Your task to perform on an android device: Go to calendar. Show me events next week Image 0: 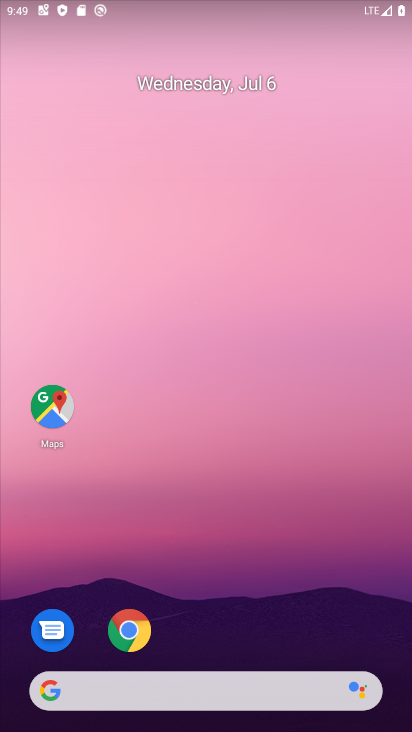
Step 0: drag from (370, 621) to (334, 100)
Your task to perform on an android device: Go to calendar. Show me events next week Image 1: 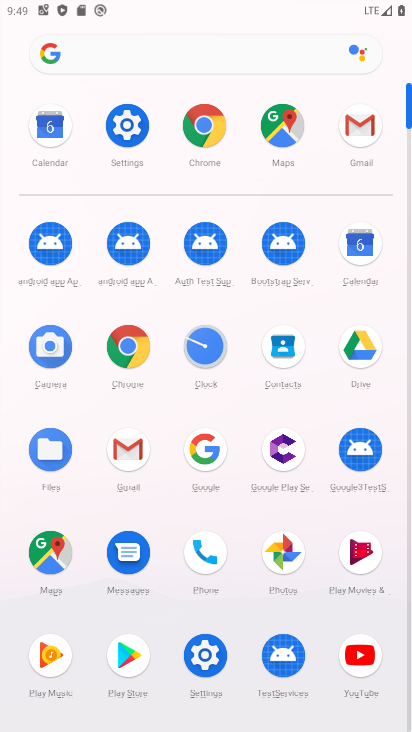
Step 1: click (359, 244)
Your task to perform on an android device: Go to calendar. Show me events next week Image 2: 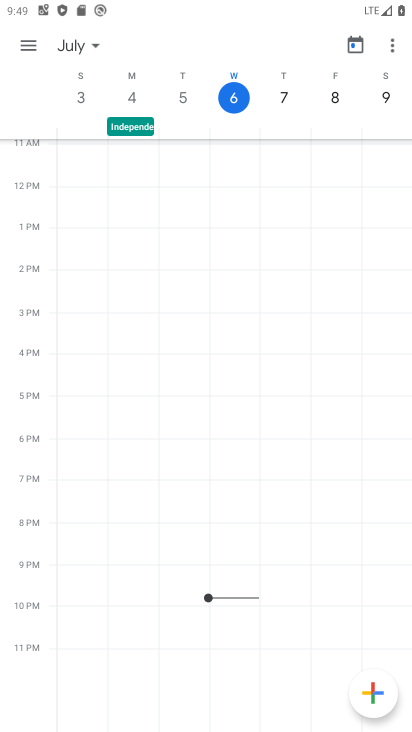
Step 2: click (25, 42)
Your task to perform on an android device: Go to calendar. Show me events next week Image 3: 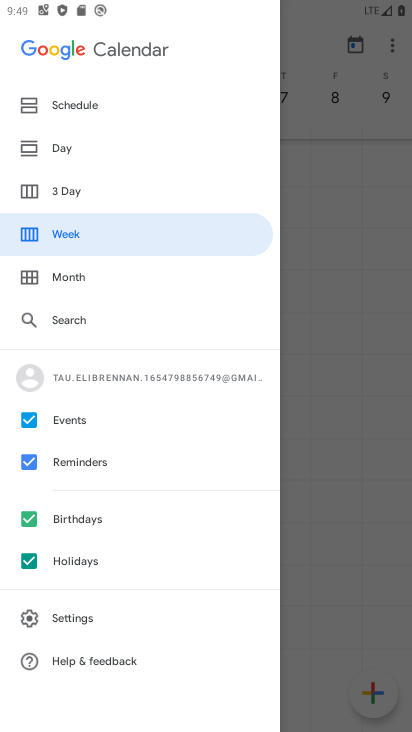
Step 3: click (87, 234)
Your task to perform on an android device: Go to calendar. Show me events next week Image 4: 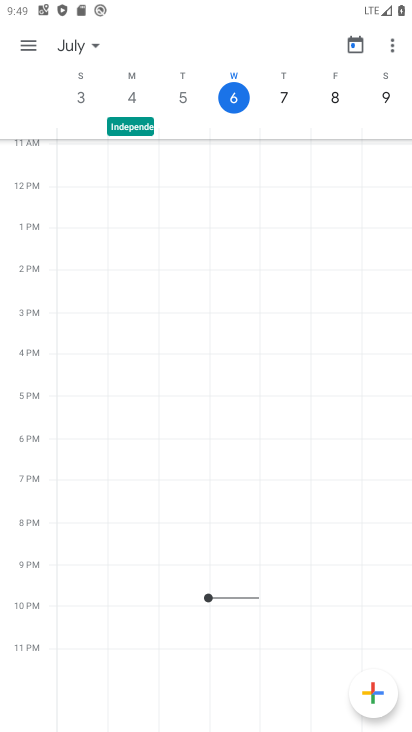
Step 4: click (94, 52)
Your task to perform on an android device: Go to calendar. Show me events next week Image 5: 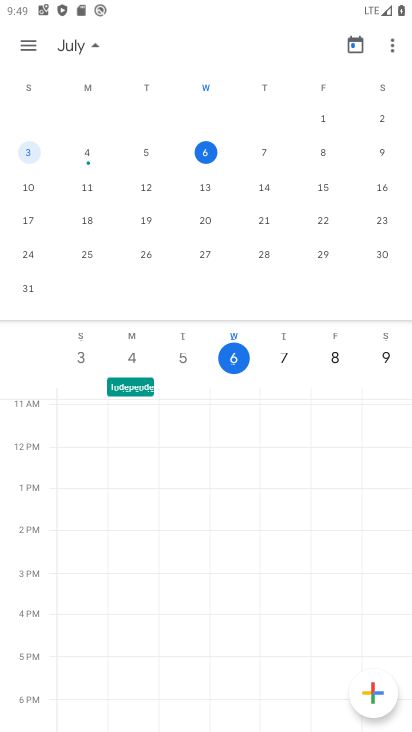
Step 5: click (24, 188)
Your task to perform on an android device: Go to calendar. Show me events next week Image 6: 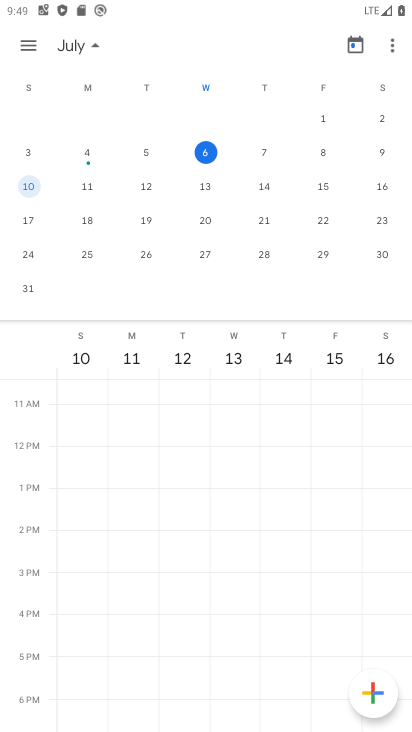
Step 6: task complete